Your task to perform on an android device: delete a single message in the gmail app Image 0: 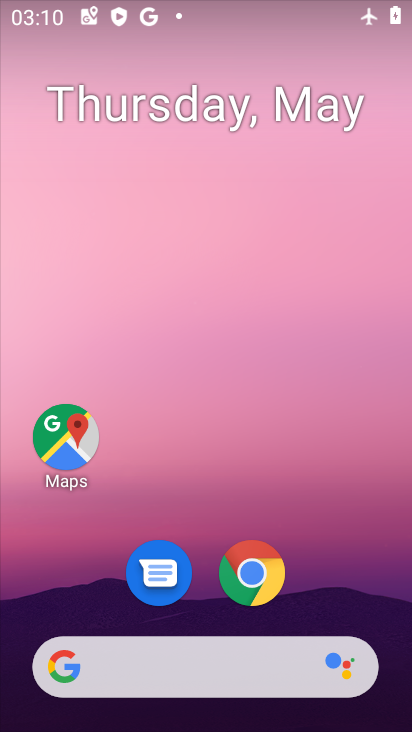
Step 0: drag from (336, 576) to (309, 252)
Your task to perform on an android device: delete a single message in the gmail app Image 1: 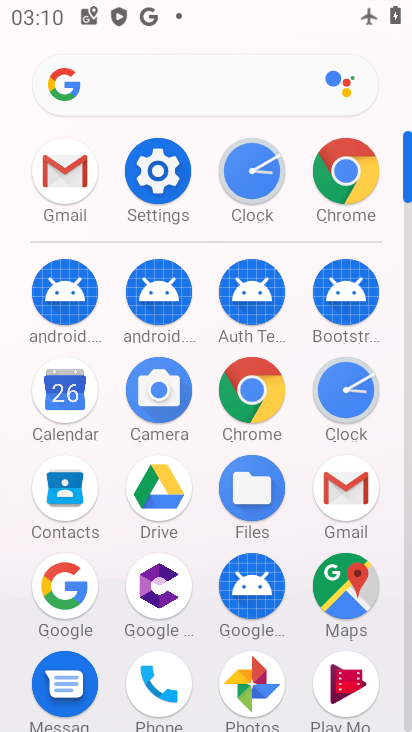
Step 1: click (329, 477)
Your task to perform on an android device: delete a single message in the gmail app Image 2: 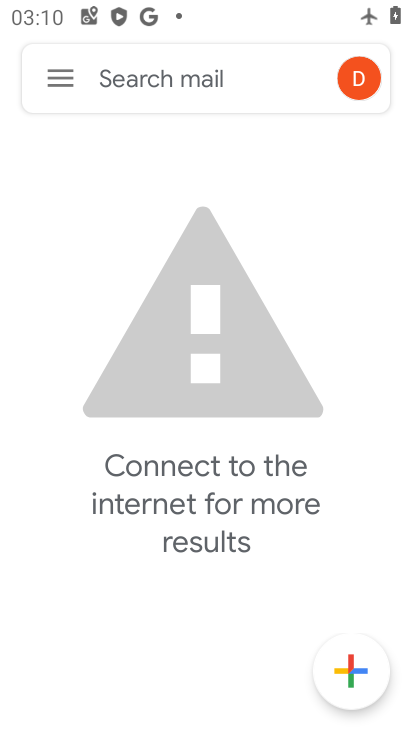
Step 2: click (62, 82)
Your task to perform on an android device: delete a single message in the gmail app Image 3: 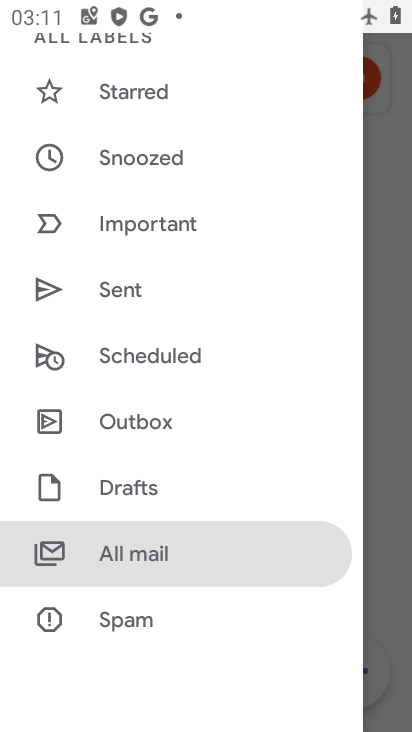
Step 3: click (253, 543)
Your task to perform on an android device: delete a single message in the gmail app Image 4: 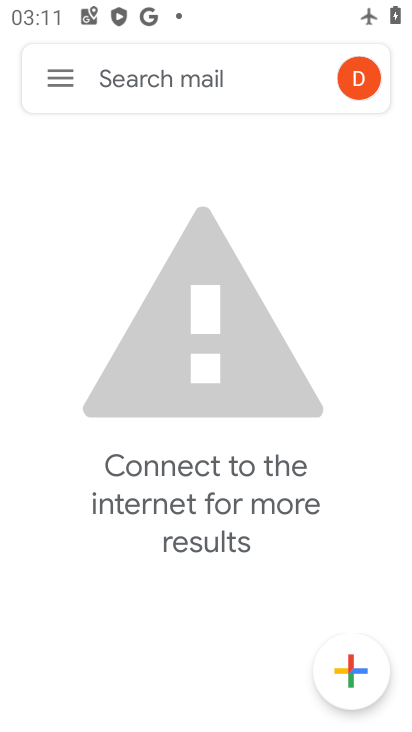
Step 4: task complete